Your task to perform on an android device: Go to Google maps Image 0: 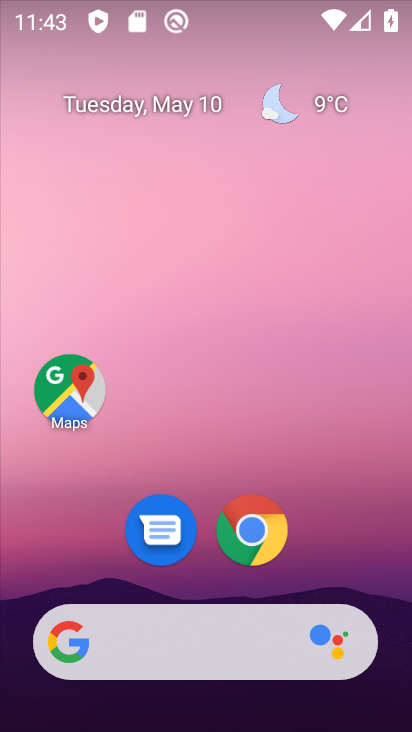
Step 0: click (83, 371)
Your task to perform on an android device: Go to Google maps Image 1: 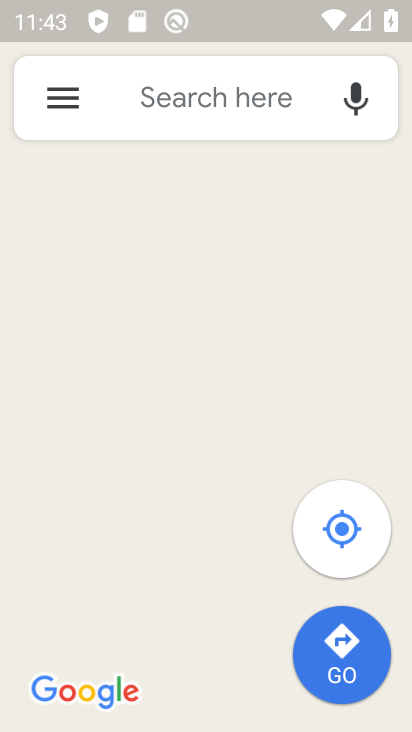
Step 1: task complete